Your task to perform on an android device: find photos in the google photos app Image 0: 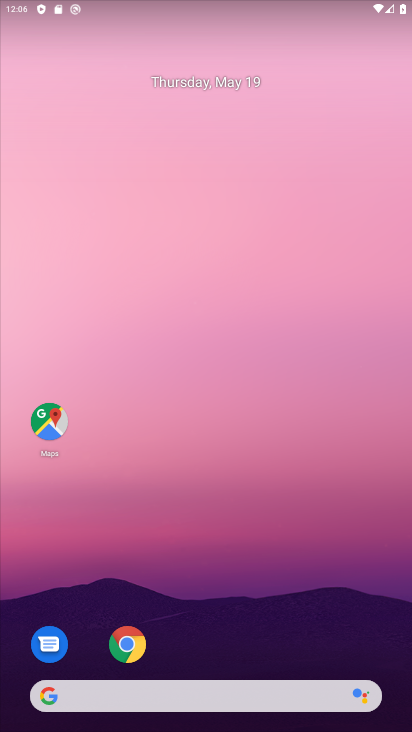
Step 0: drag from (214, 601) to (253, 197)
Your task to perform on an android device: find photos in the google photos app Image 1: 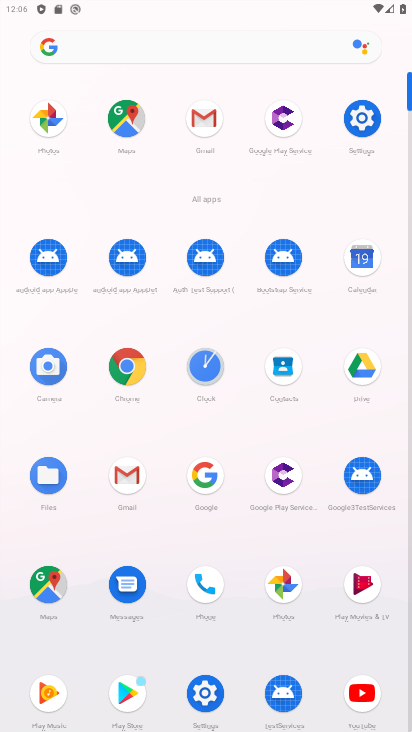
Step 1: click (288, 577)
Your task to perform on an android device: find photos in the google photos app Image 2: 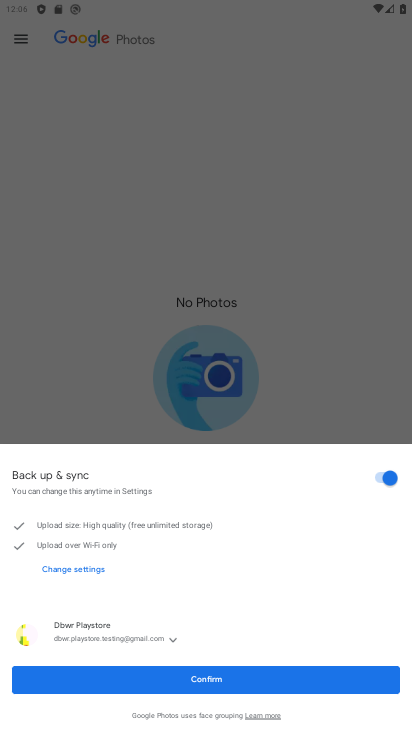
Step 2: click (287, 675)
Your task to perform on an android device: find photos in the google photos app Image 3: 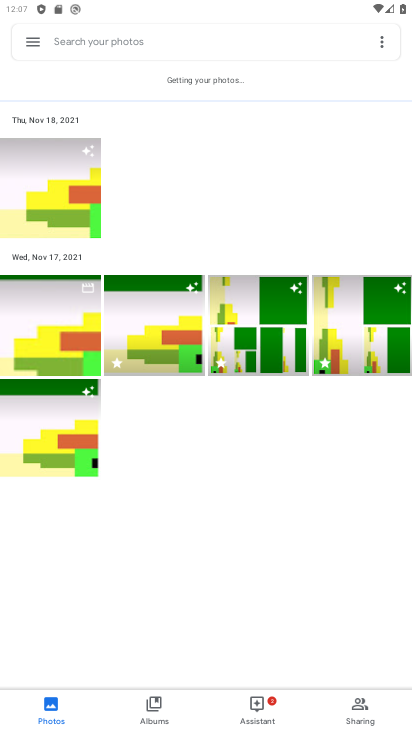
Step 3: task complete